Your task to perform on an android device: When is my next meeting? Image 0: 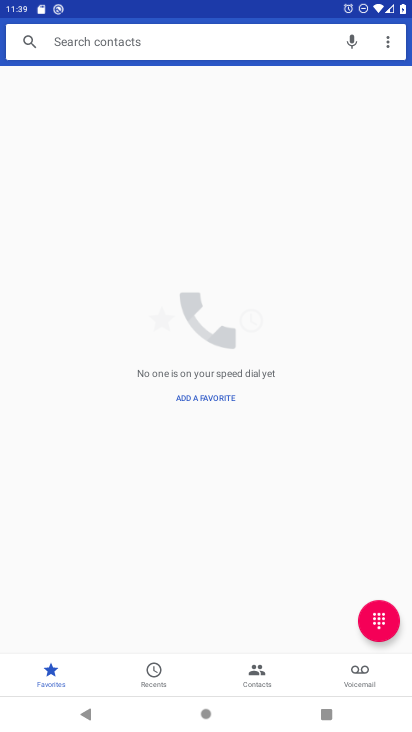
Step 0: press home button
Your task to perform on an android device: When is my next meeting? Image 1: 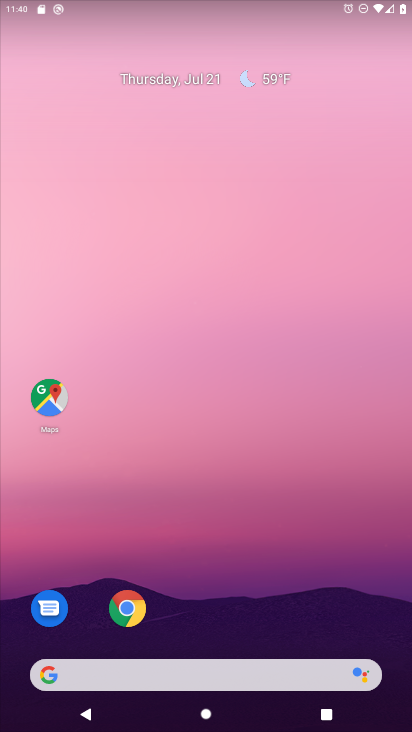
Step 1: drag from (311, 584) to (214, 1)
Your task to perform on an android device: When is my next meeting? Image 2: 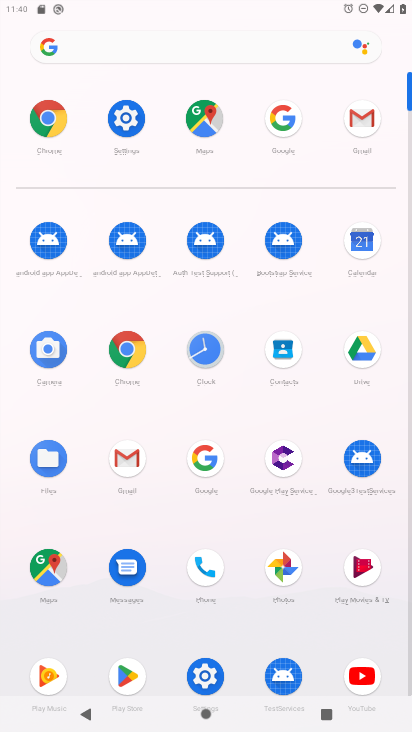
Step 2: click (362, 250)
Your task to perform on an android device: When is my next meeting? Image 3: 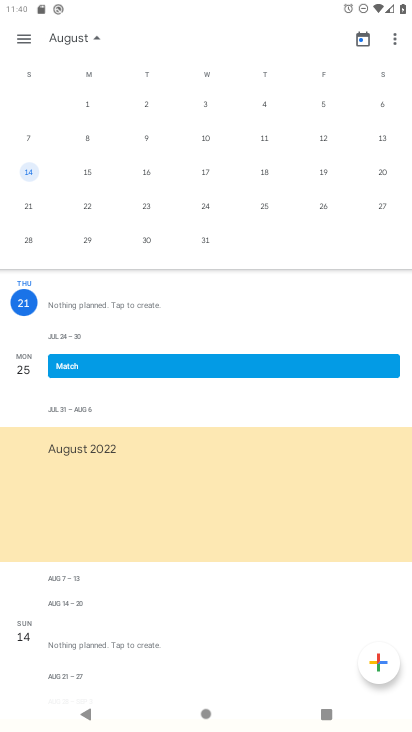
Step 3: task complete